Your task to perform on an android device: turn off notifications settings in the gmail app Image 0: 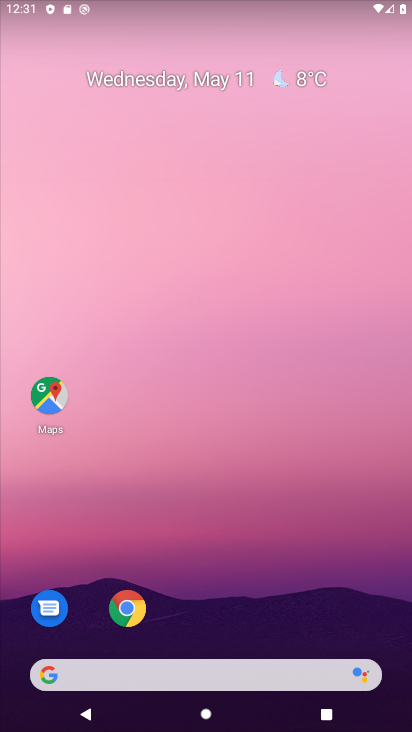
Step 0: drag from (351, 6) to (410, 538)
Your task to perform on an android device: turn off notifications settings in the gmail app Image 1: 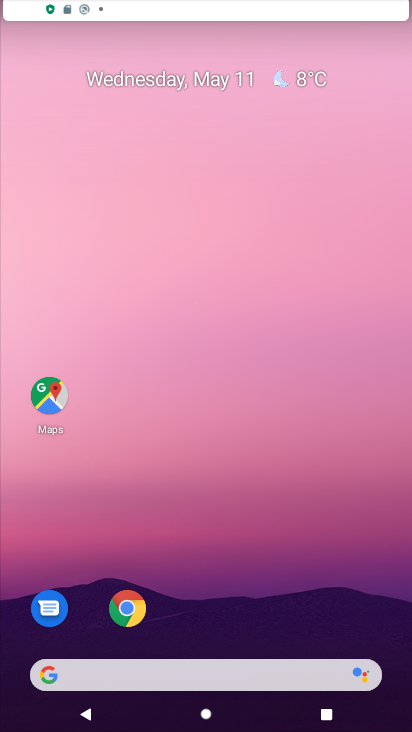
Step 1: drag from (249, 515) to (144, 95)
Your task to perform on an android device: turn off notifications settings in the gmail app Image 2: 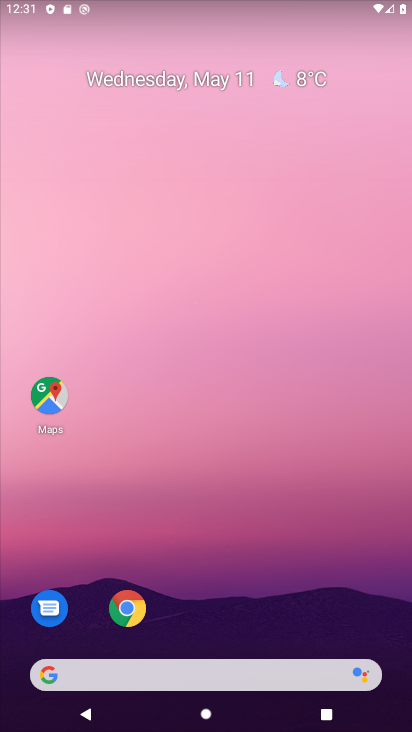
Step 2: drag from (278, 611) to (376, 104)
Your task to perform on an android device: turn off notifications settings in the gmail app Image 3: 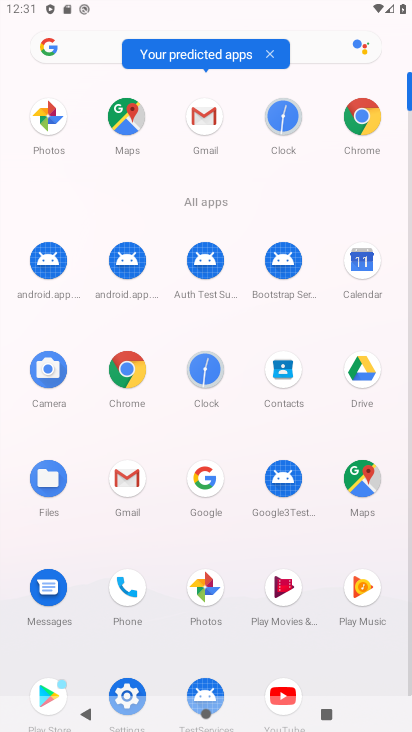
Step 3: click (214, 143)
Your task to perform on an android device: turn off notifications settings in the gmail app Image 4: 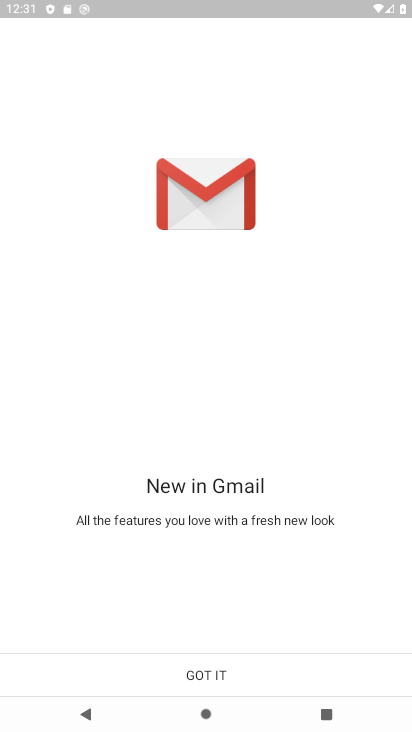
Step 4: click (277, 668)
Your task to perform on an android device: turn off notifications settings in the gmail app Image 5: 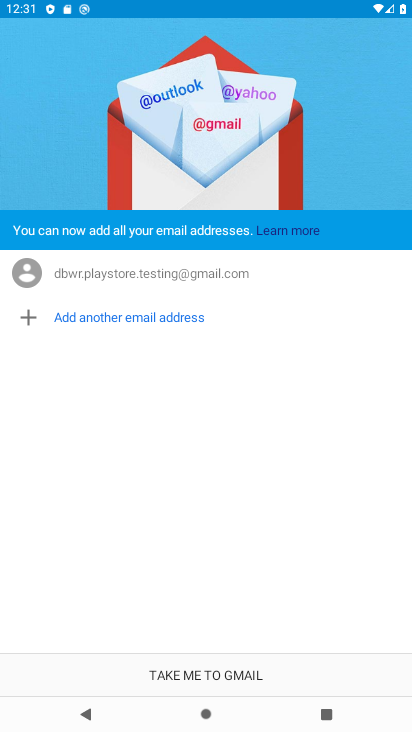
Step 5: click (269, 662)
Your task to perform on an android device: turn off notifications settings in the gmail app Image 6: 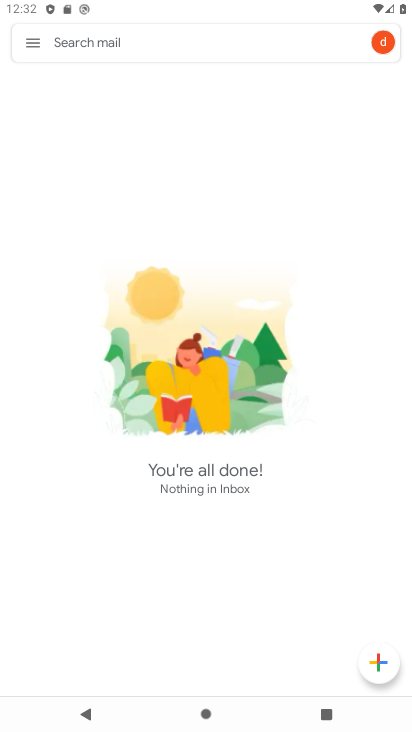
Step 6: click (37, 44)
Your task to perform on an android device: turn off notifications settings in the gmail app Image 7: 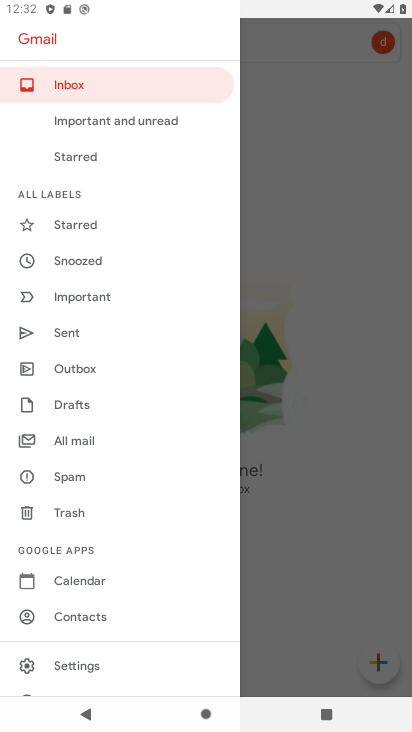
Step 7: click (82, 655)
Your task to perform on an android device: turn off notifications settings in the gmail app Image 8: 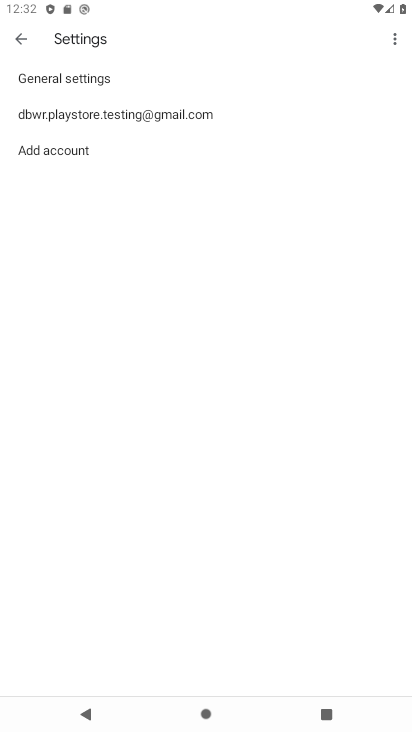
Step 8: click (206, 120)
Your task to perform on an android device: turn off notifications settings in the gmail app Image 9: 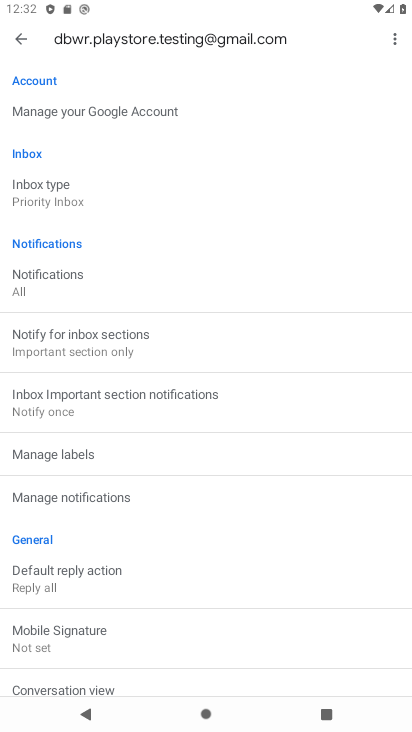
Step 9: click (78, 272)
Your task to perform on an android device: turn off notifications settings in the gmail app Image 10: 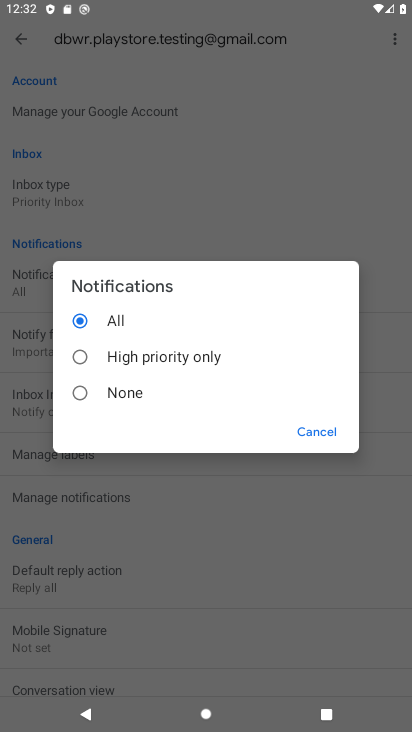
Step 10: click (131, 391)
Your task to perform on an android device: turn off notifications settings in the gmail app Image 11: 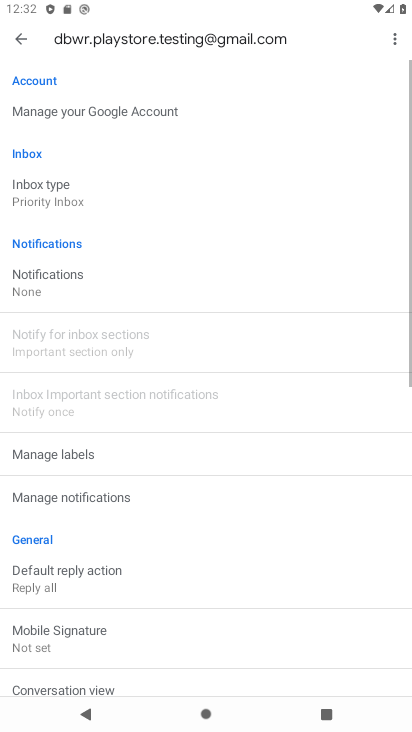
Step 11: task complete